Your task to perform on an android device: Toggle the flashlight Image 0: 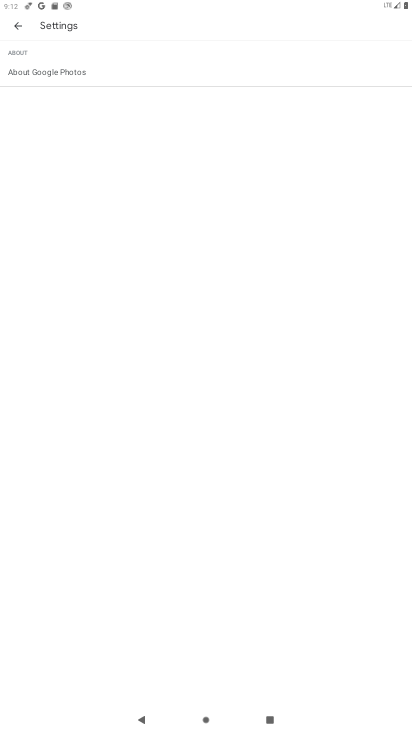
Step 0: drag from (246, 11) to (229, 497)
Your task to perform on an android device: Toggle the flashlight Image 1: 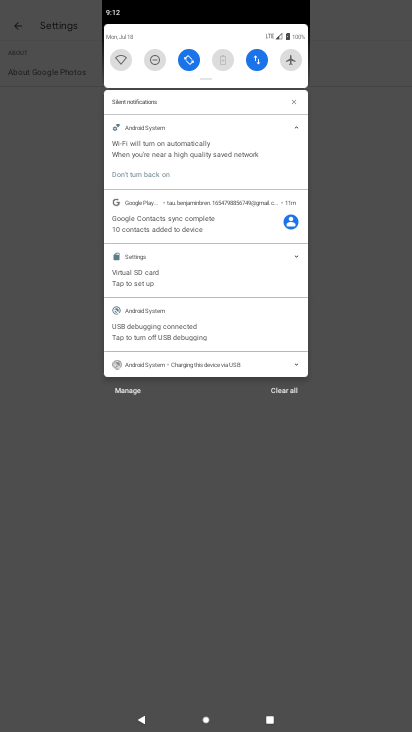
Step 1: drag from (219, 60) to (226, 553)
Your task to perform on an android device: Toggle the flashlight Image 2: 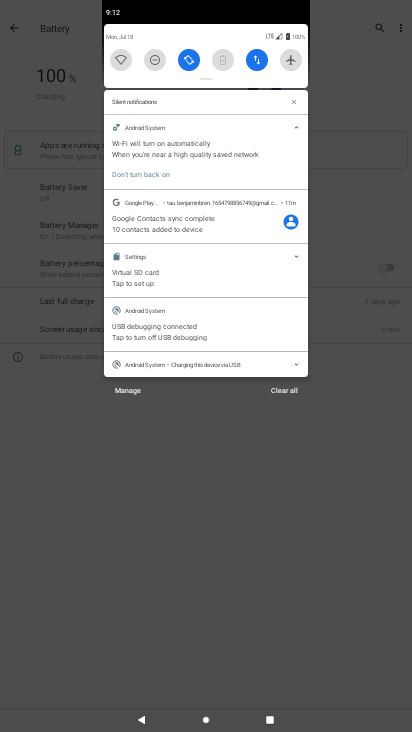
Step 2: drag from (215, 28) to (251, 277)
Your task to perform on an android device: Toggle the flashlight Image 3: 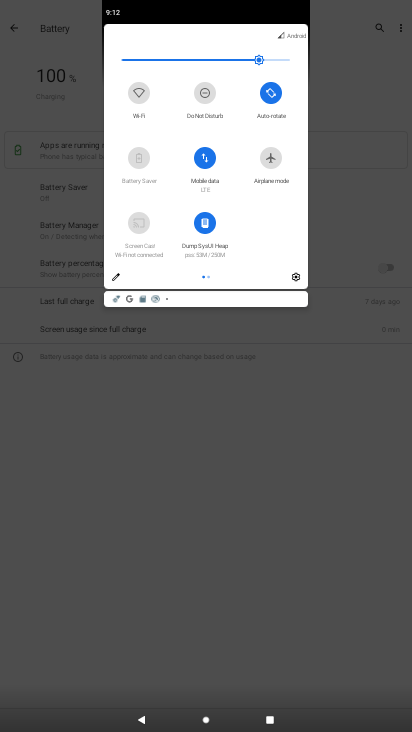
Step 3: drag from (272, 249) to (51, 215)
Your task to perform on an android device: Toggle the flashlight Image 4: 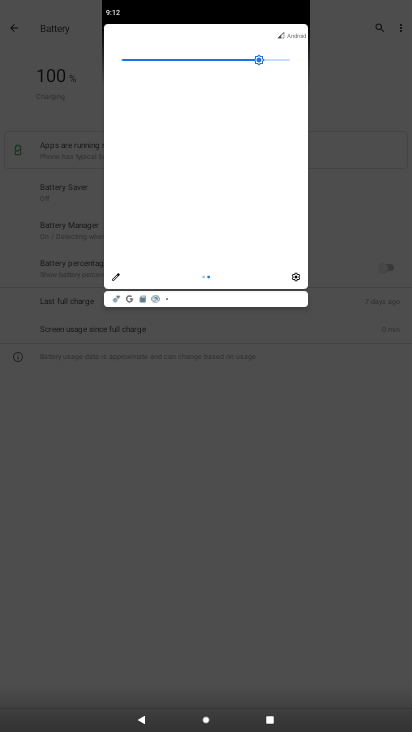
Step 4: click (116, 277)
Your task to perform on an android device: Toggle the flashlight Image 5: 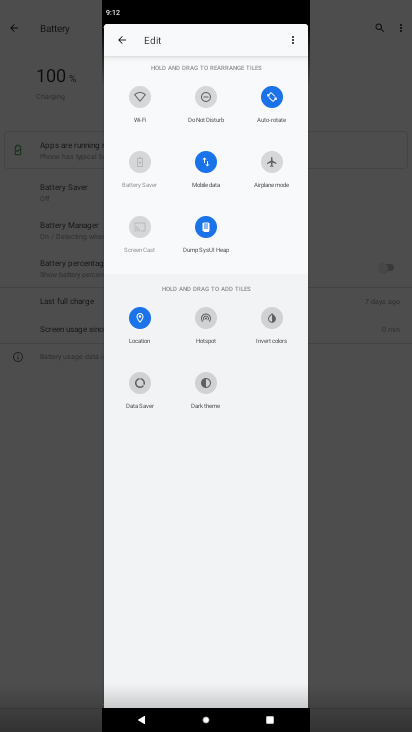
Step 5: task complete